Your task to perform on an android device: What's the weather? Image 0: 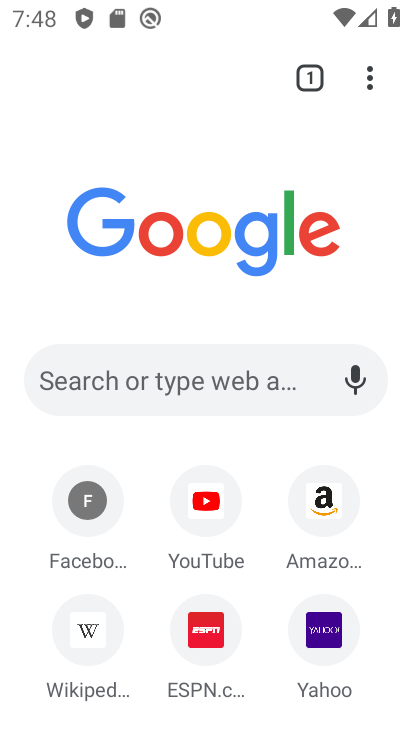
Step 0: press home button
Your task to perform on an android device: What's the weather? Image 1: 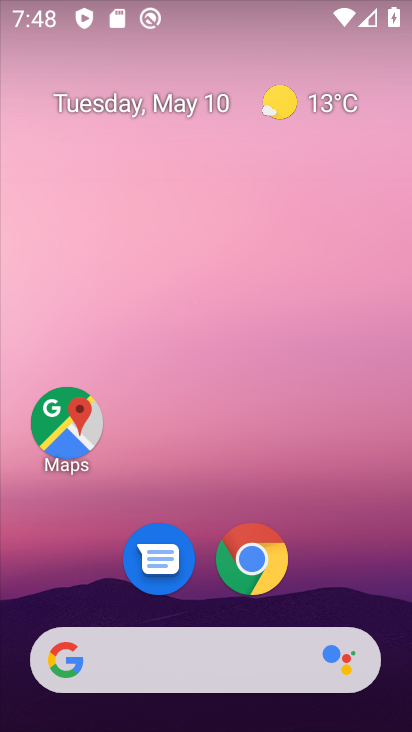
Step 1: click (277, 107)
Your task to perform on an android device: What's the weather? Image 2: 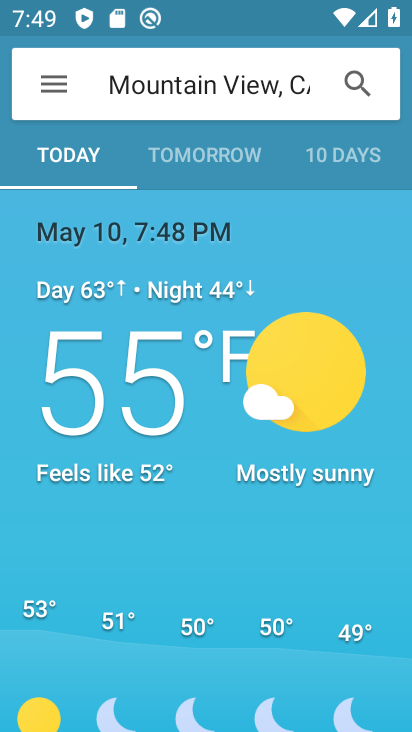
Step 2: task complete